Your task to perform on an android device: set the stopwatch Image 0: 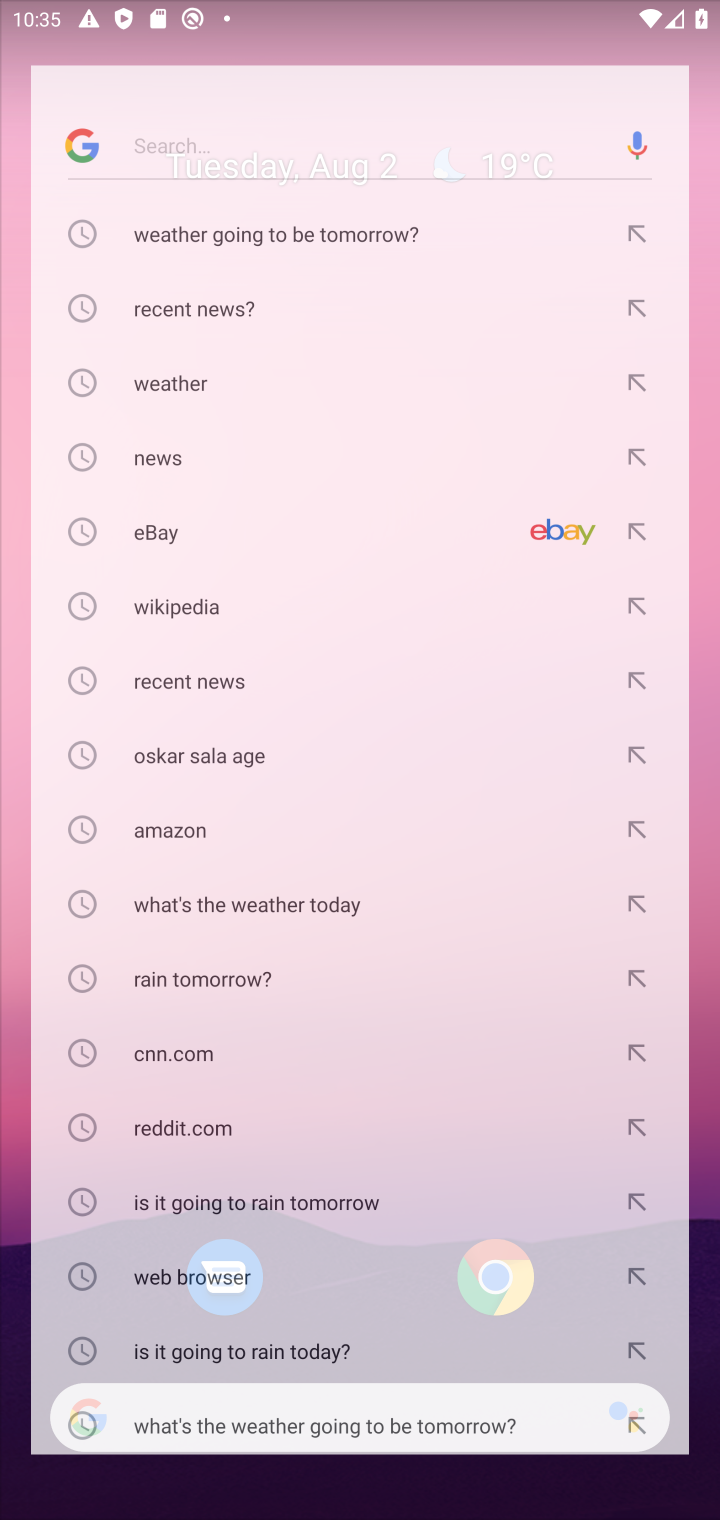
Step 0: press home button
Your task to perform on an android device: set the stopwatch Image 1: 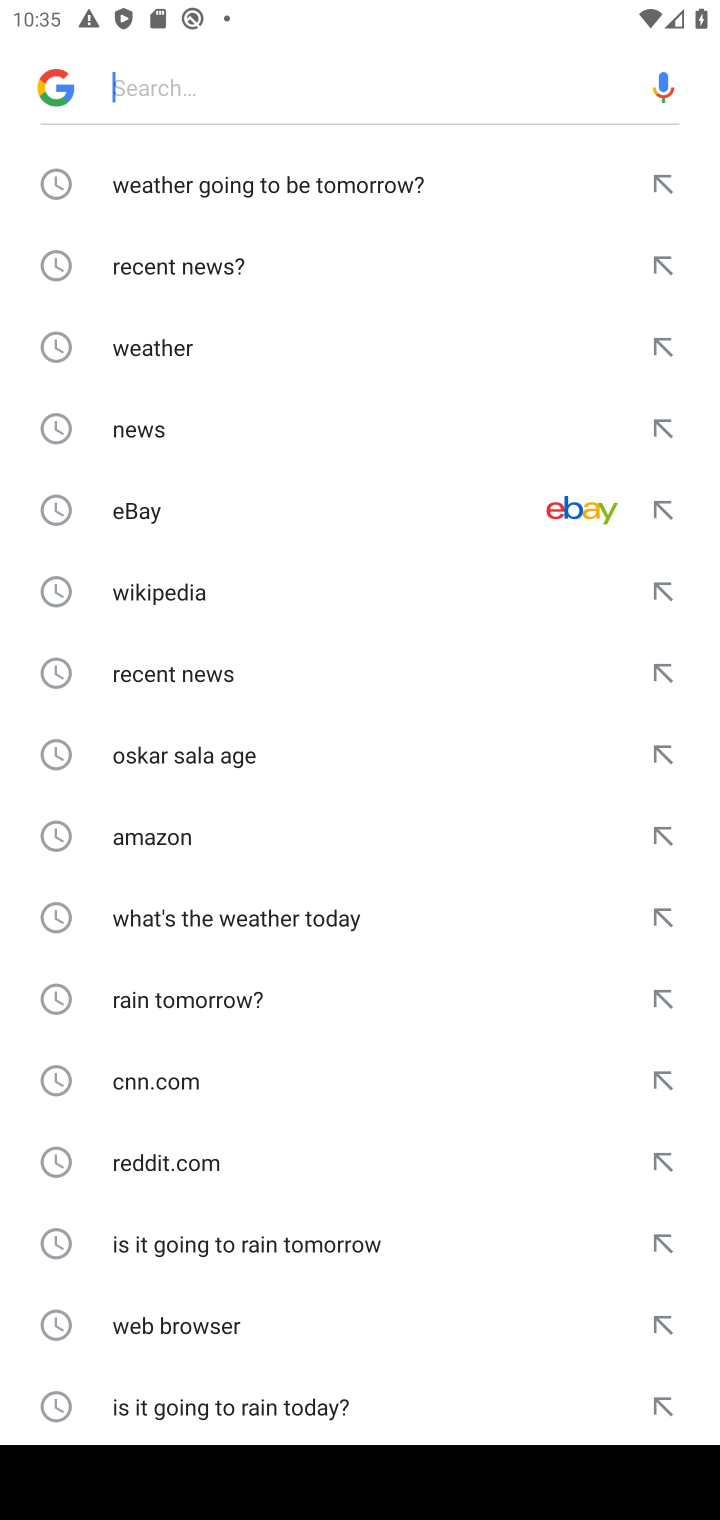
Step 1: press home button
Your task to perform on an android device: set the stopwatch Image 2: 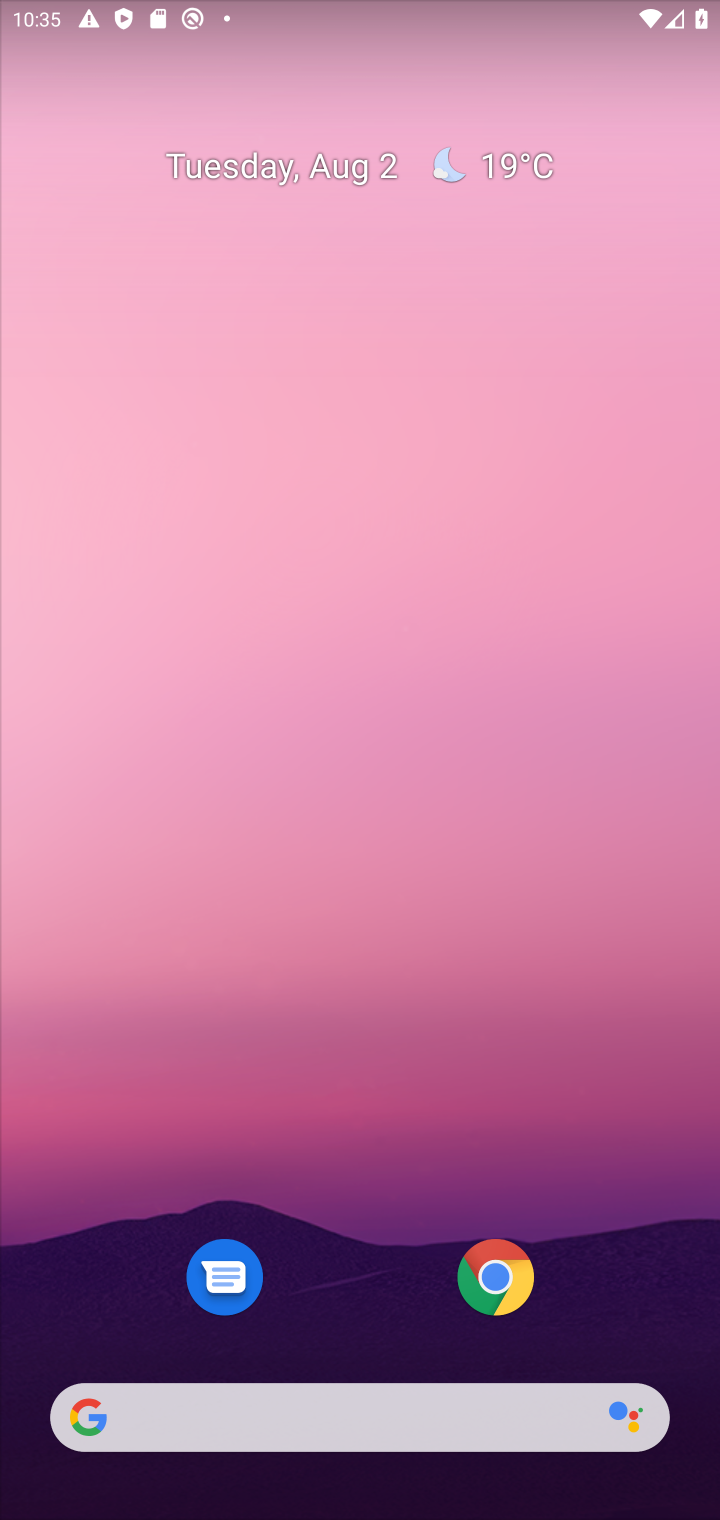
Step 2: press home button
Your task to perform on an android device: set the stopwatch Image 3: 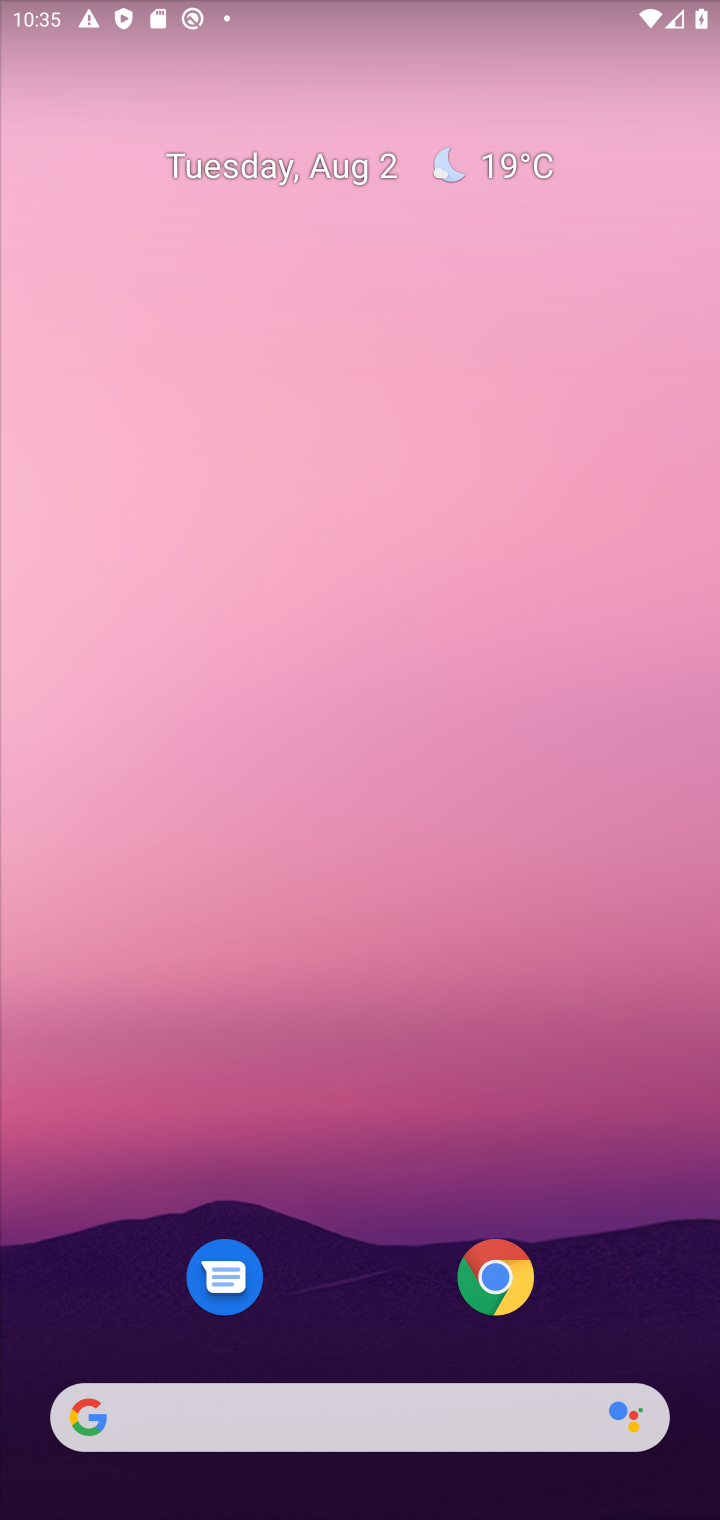
Step 3: press home button
Your task to perform on an android device: set the stopwatch Image 4: 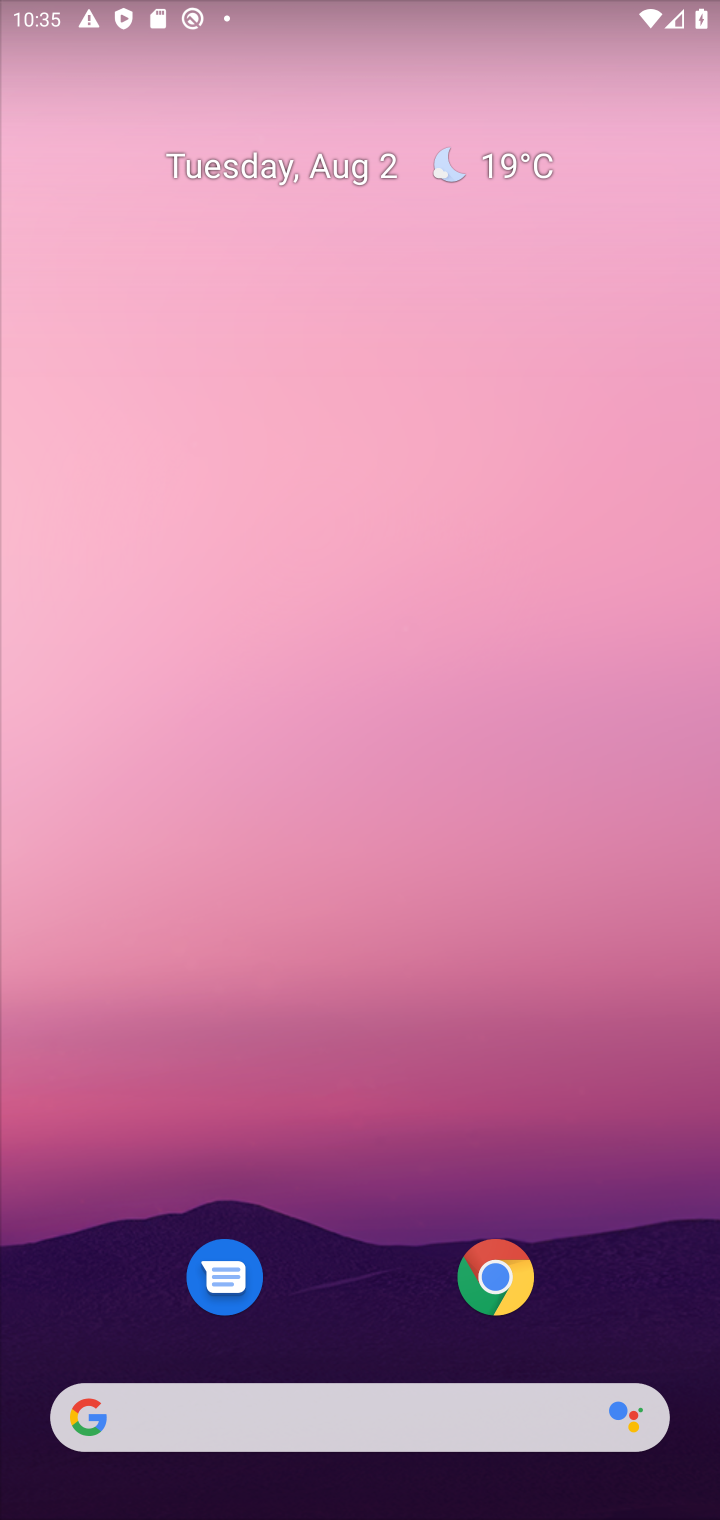
Step 4: drag from (352, 1275) to (408, 179)
Your task to perform on an android device: set the stopwatch Image 5: 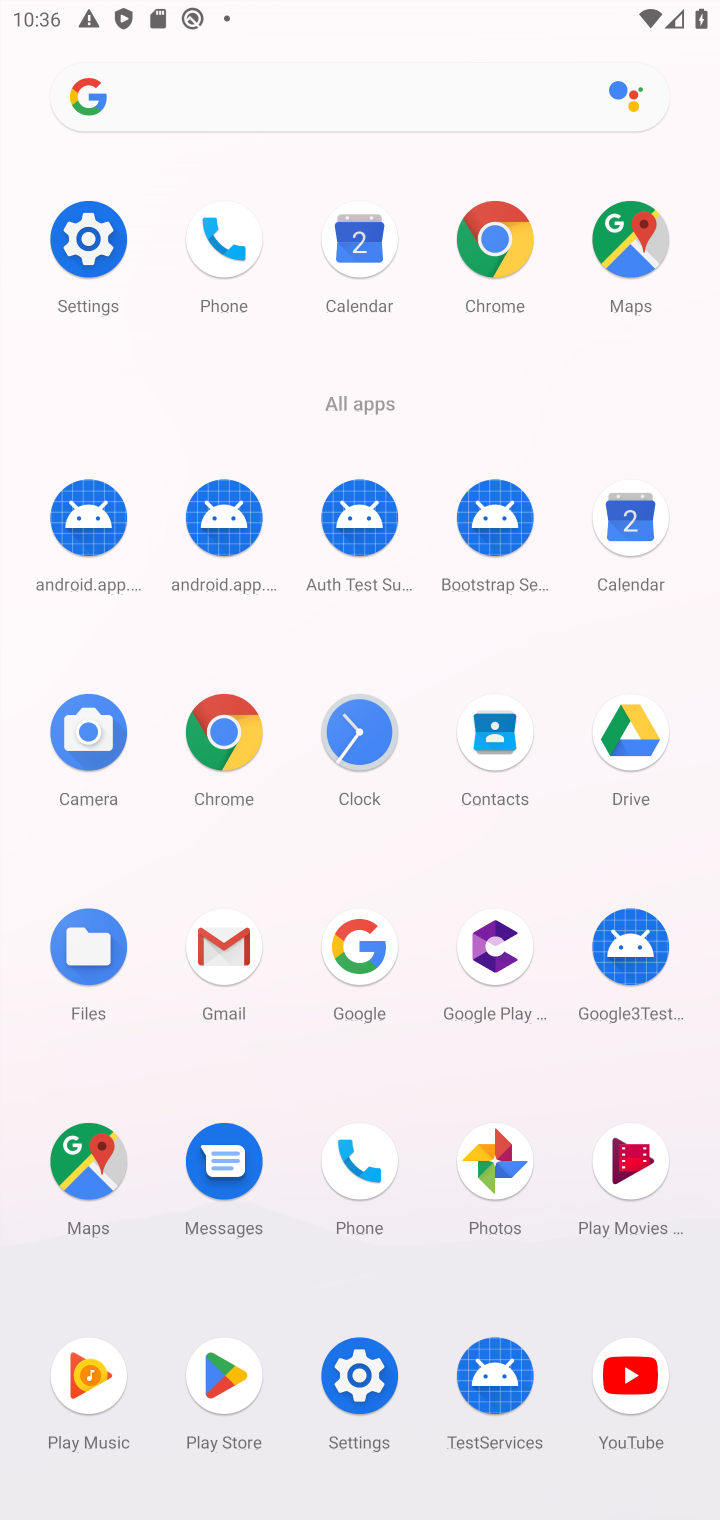
Step 5: click (344, 720)
Your task to perform on an android device: set the stopwatch Image 6: 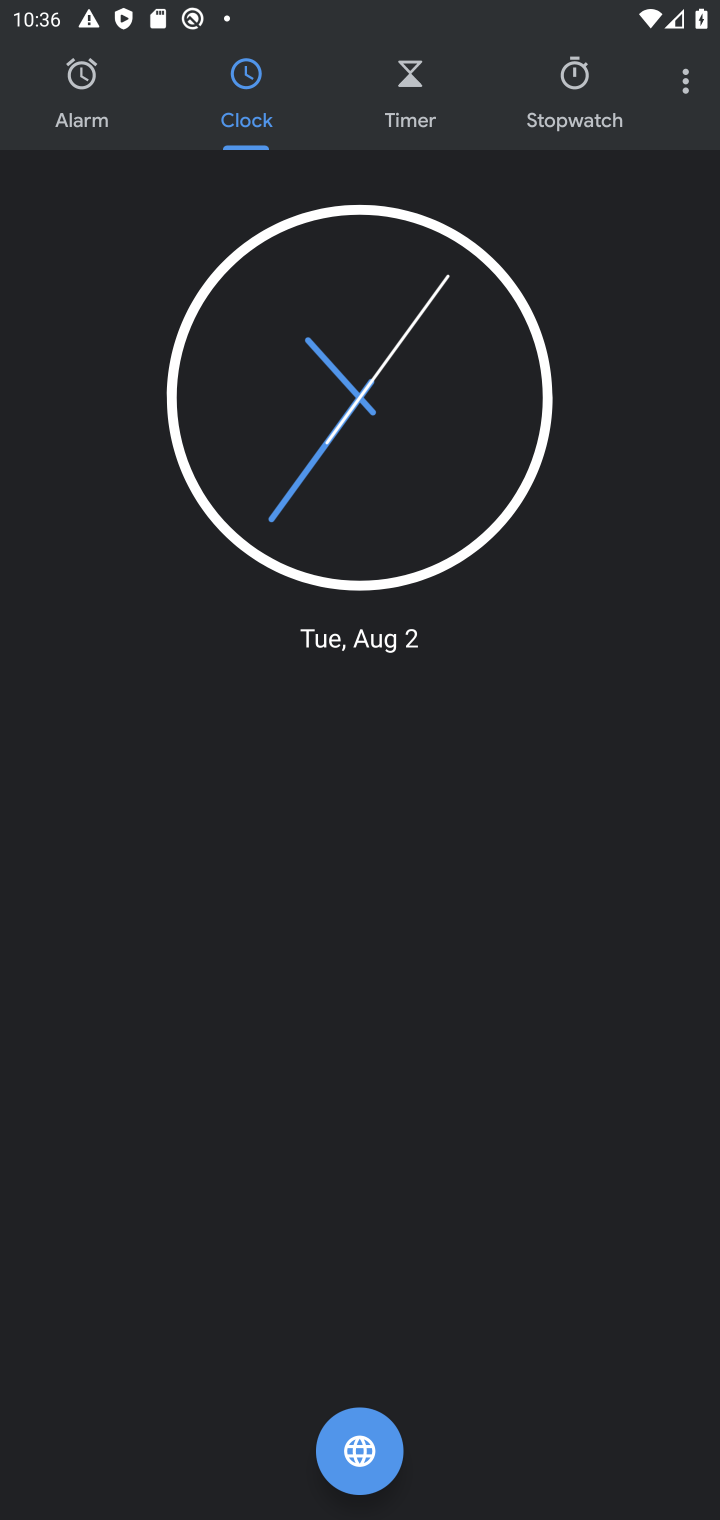
Step 6: click (545, 88)
Your task to perform on an android device: set the stopwatch Image 7: 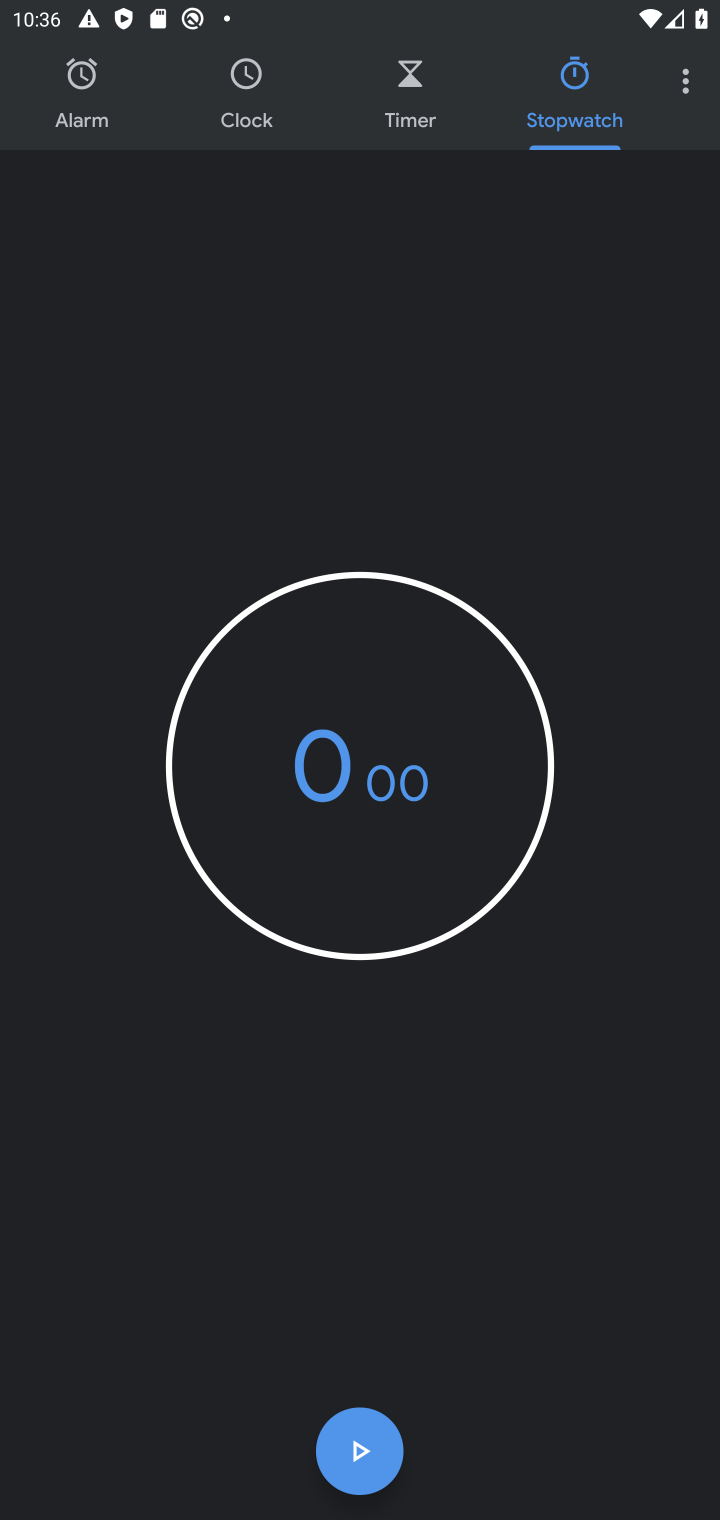
Step 7: click (375, 1432)
Your task to perform on an android device: set the stopwatch Image 8: 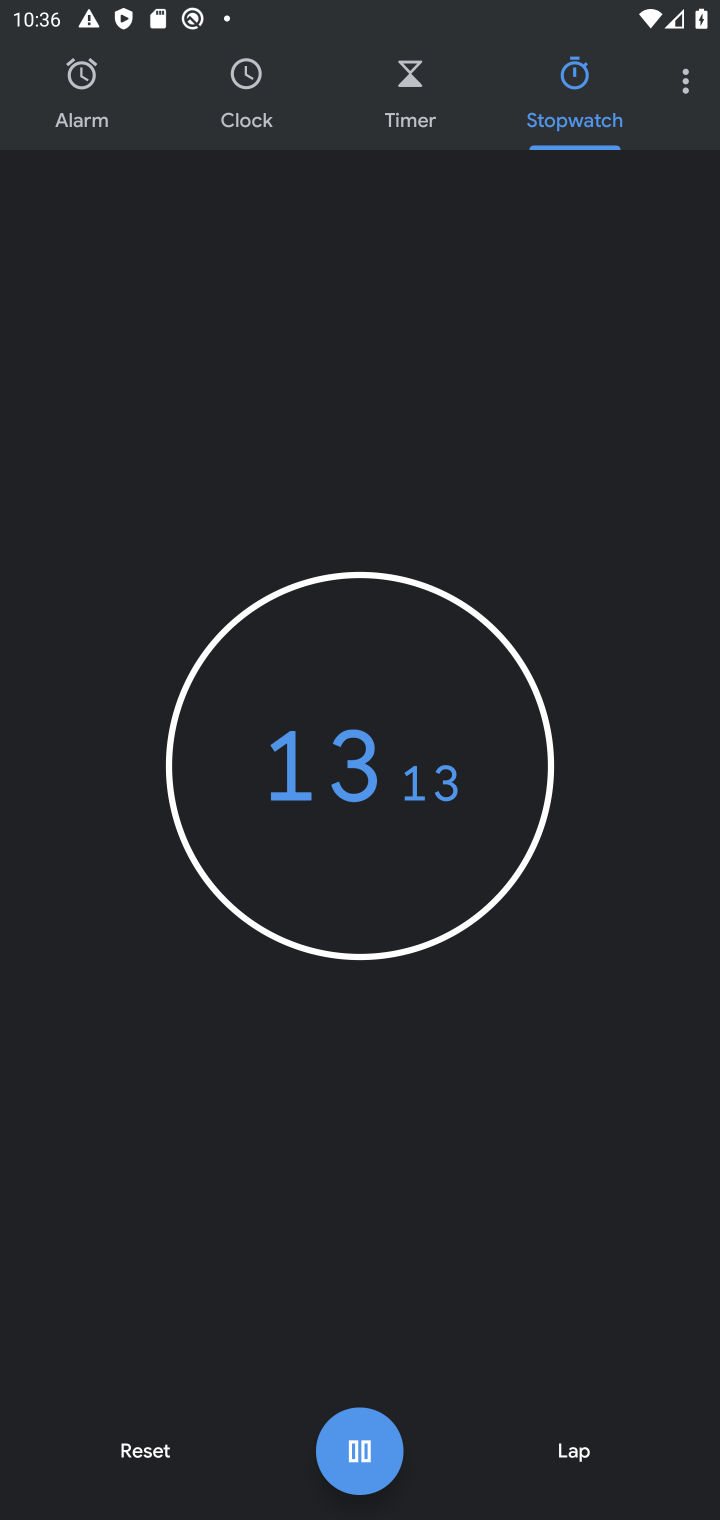
Step 8: click (366, 1472)
Your task to perform on an android device: set the stopwatch Image 9: 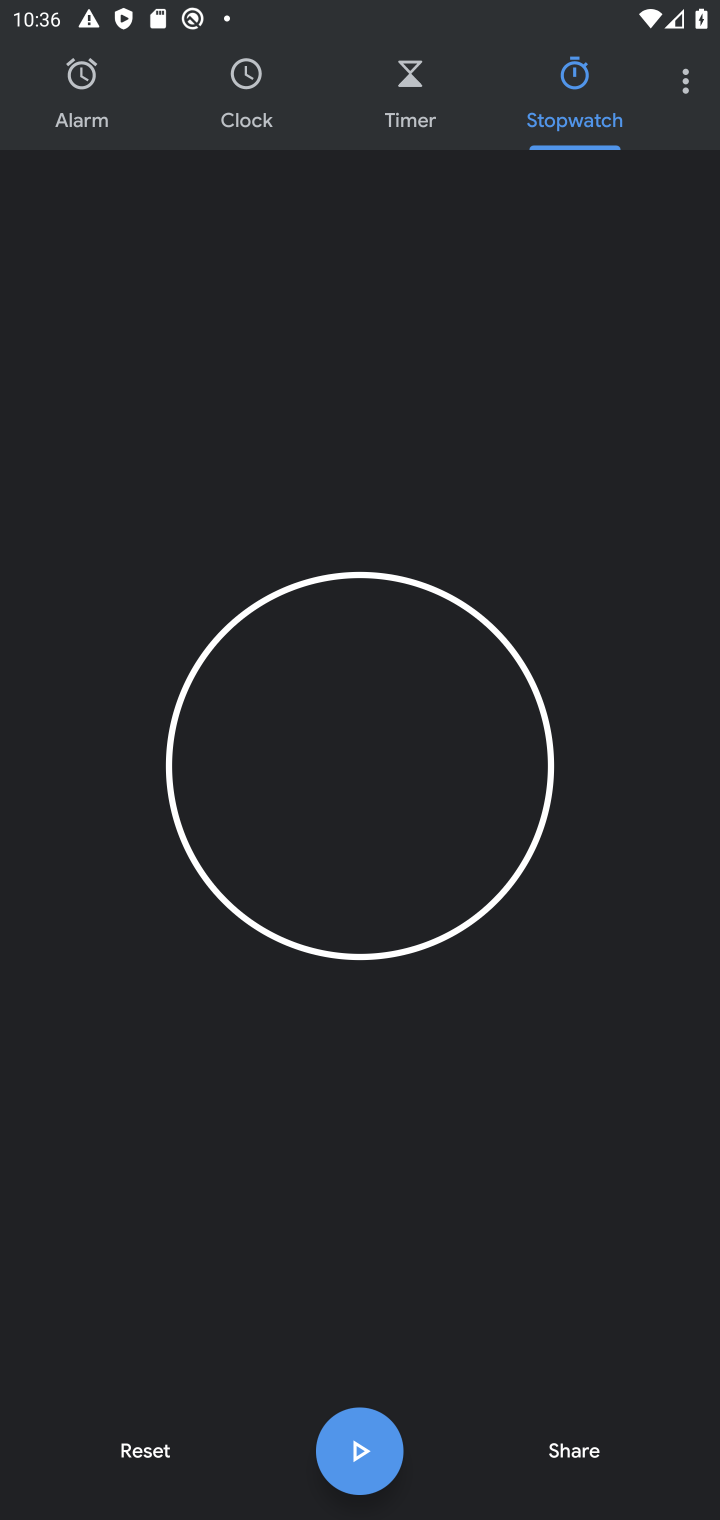
Step 9: task complete